Your task to perform on an android device: Go to location settings Image 0: 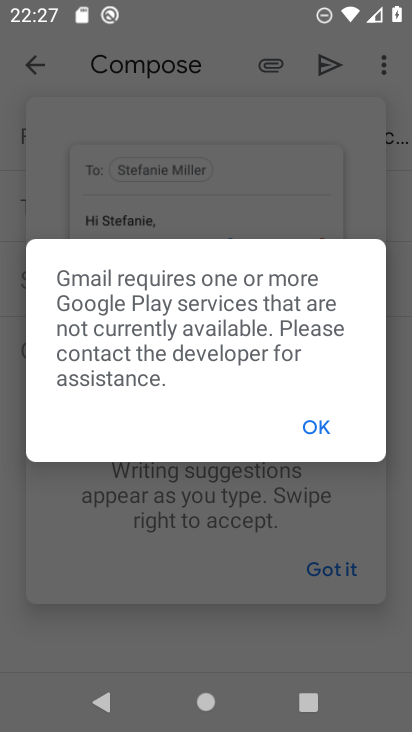
Step 0: press home button
Your task to perform on an android device: Go to location settings Image 1: 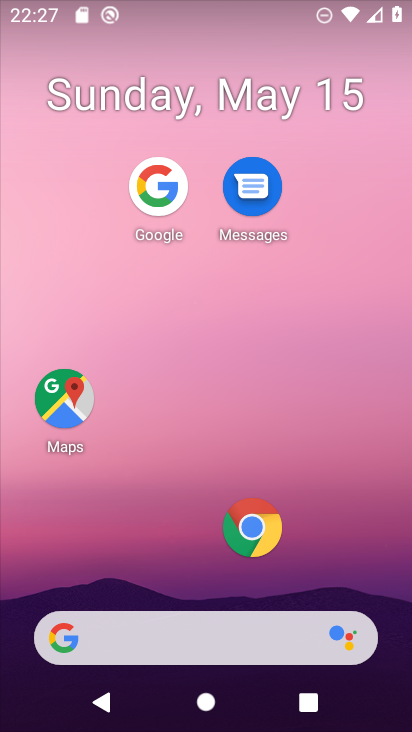
Step 1: drag from (178, 645) to (318, 131)
Your task to perform on an android device: Go to location settings Image 2: 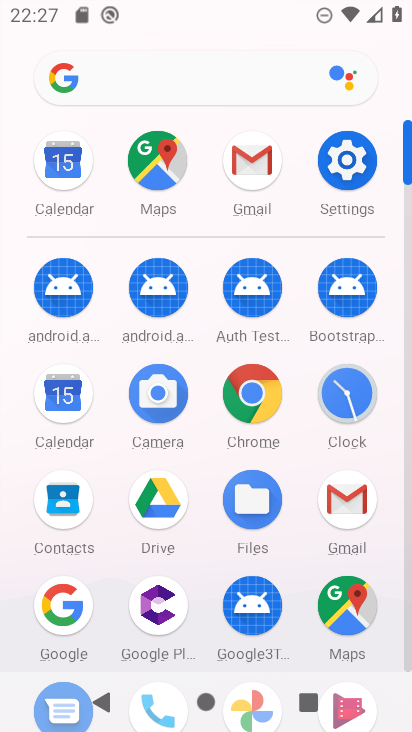
Step 2: click (347, 169)
Your task to perform on an android device: Go to location settings Image 3: 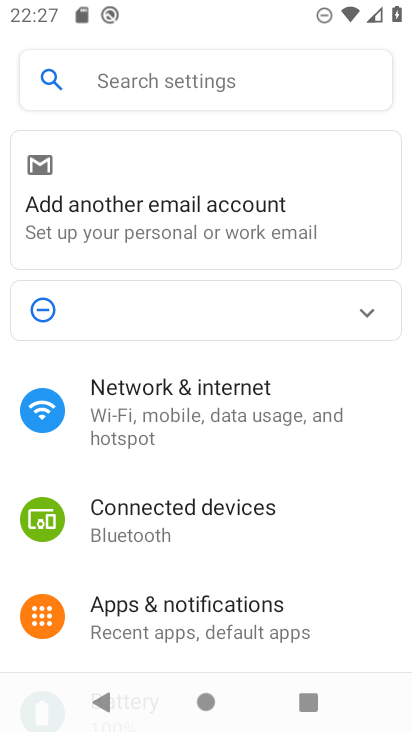
Step 3: drag from (170, 649) to (348, 164)
Your task to perform on an android device: Go to location settings Image 4: 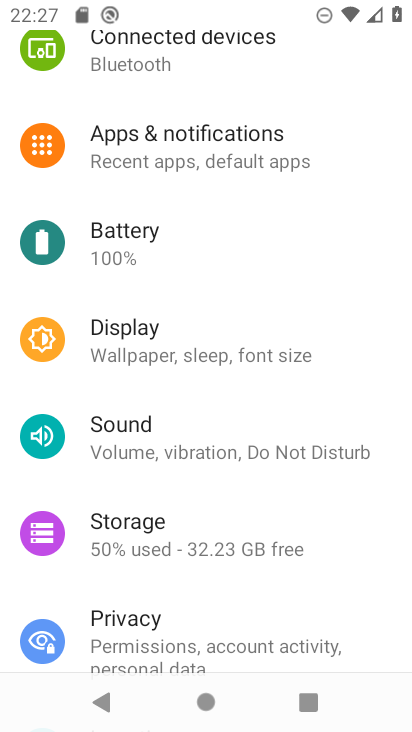
Step 4: drag from (184, 601) to (325, 224)
Your task to perform on an android device: Go to location settings Image 5: 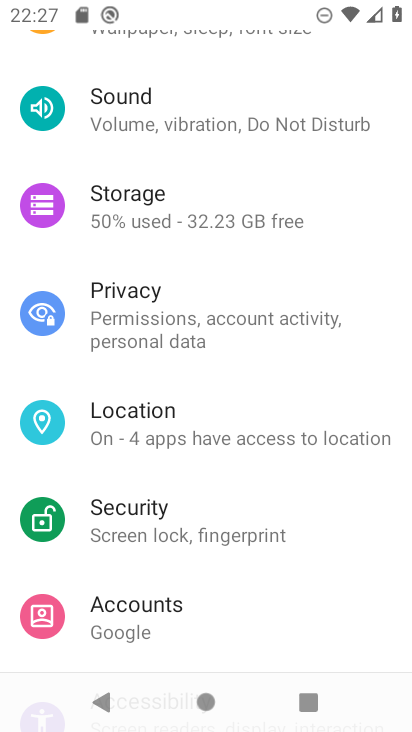
Step 5: click (152, 416)
Your task to perform on an android device: Go to location settings Image 6: 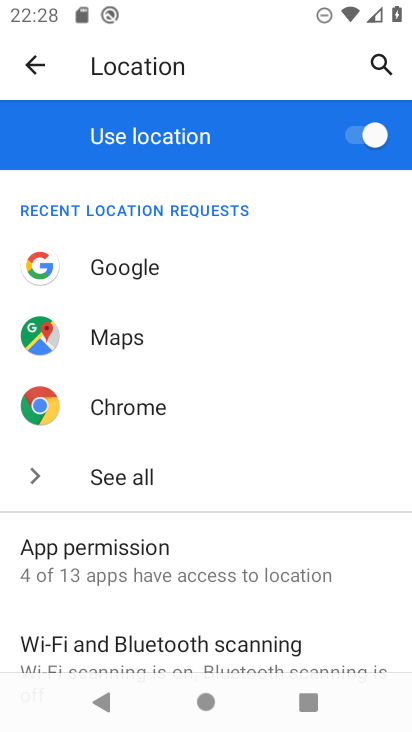
Step 6: task complete